Your task to perform on an android device: Open calendar and show me the first week of next month Image 0: 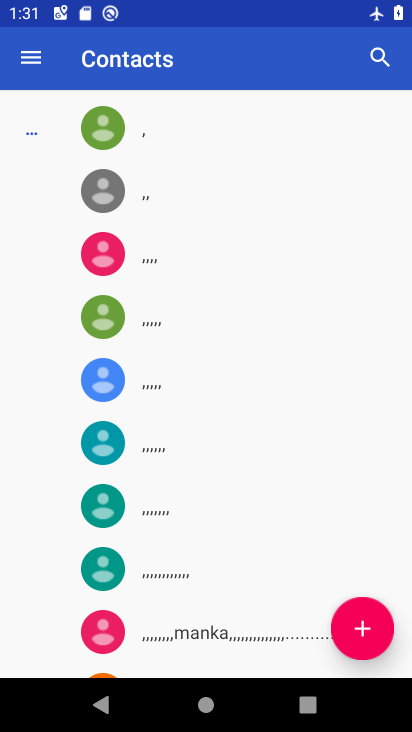
Step 0: press home button
Your task to perform on an android device: Open calendar and show me the first week of next month Image 1: 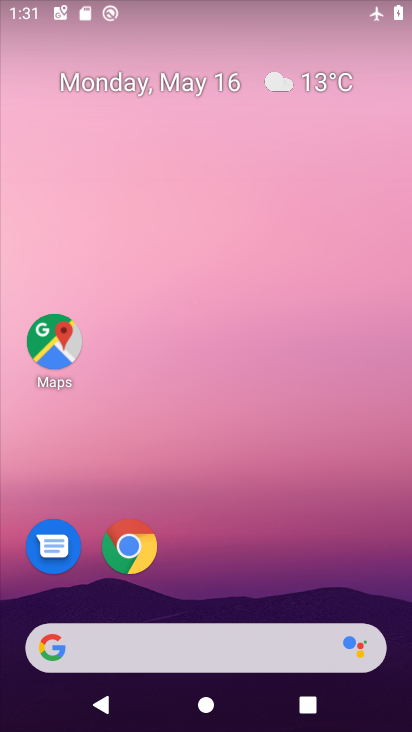
Step 1: drag from (184, 729) to (190, 41)
Your task to perform on an android device: Open calendar and show me the first week of next month Image 2: 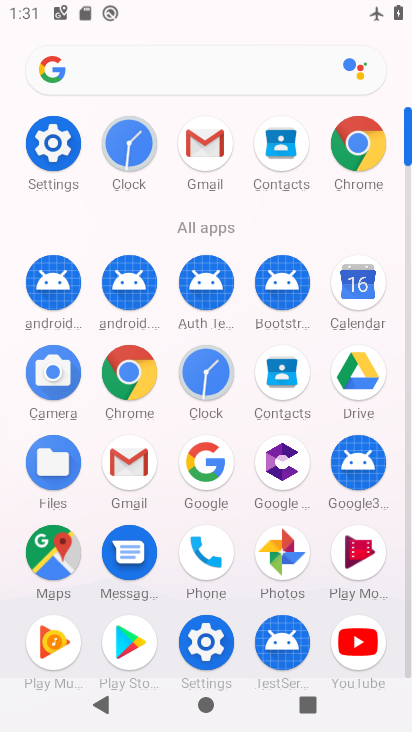
Step 2: click (359, 291)
Your task to perform on an android device: Open calendar and show me the first week of next month Image 3: 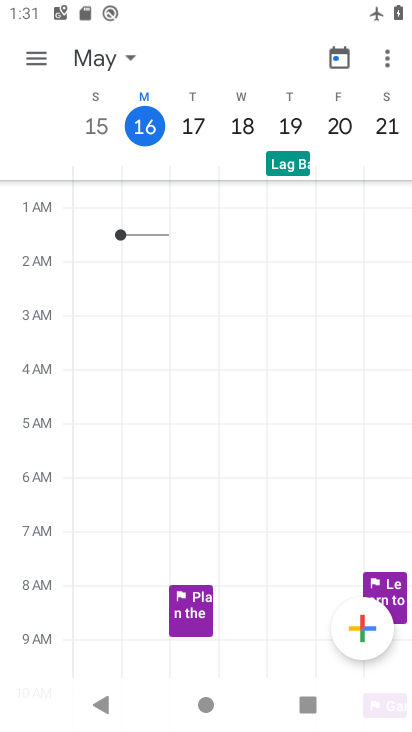
Step 3: click (126, 55)
Your task to perform on an android device: Open calendar and show me the first week of next month Image 4: 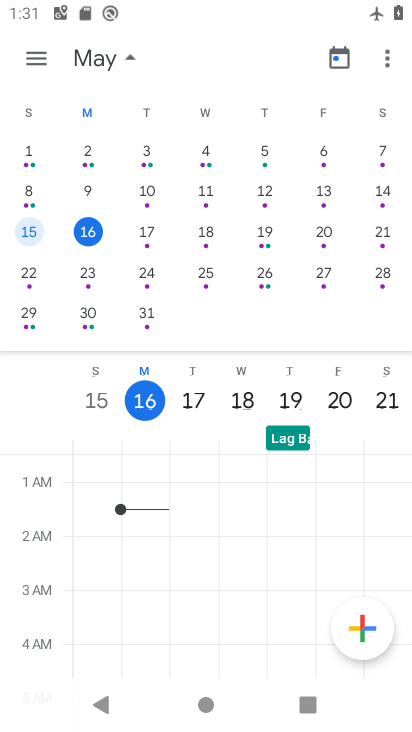
Step 4: drag from (328, 231) to (12, 241)
Your task to perform on an android device: Open calendar and show me the first week of next month Image 5: 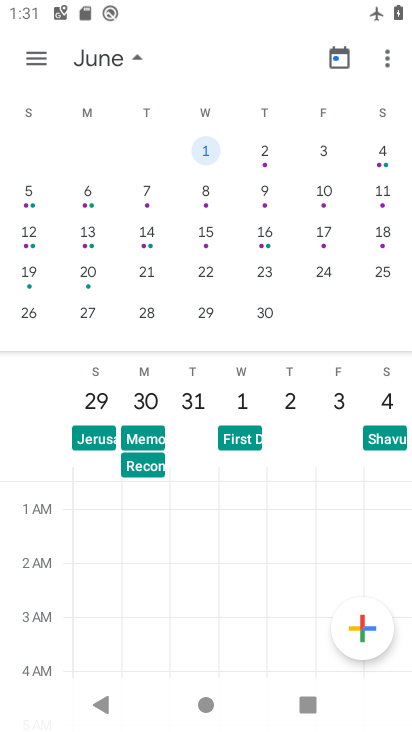
Step 5: click (88, 189)
Your task to perform on an android device: Open calendar and show me the first week of next month Image 6: 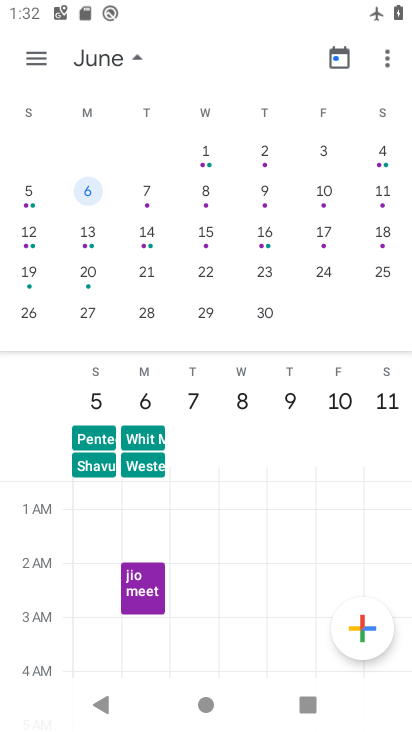
Step 6: click (32, 55)
Your task to perform on an android device: Open calendar and show me the first week of next month Image 7: 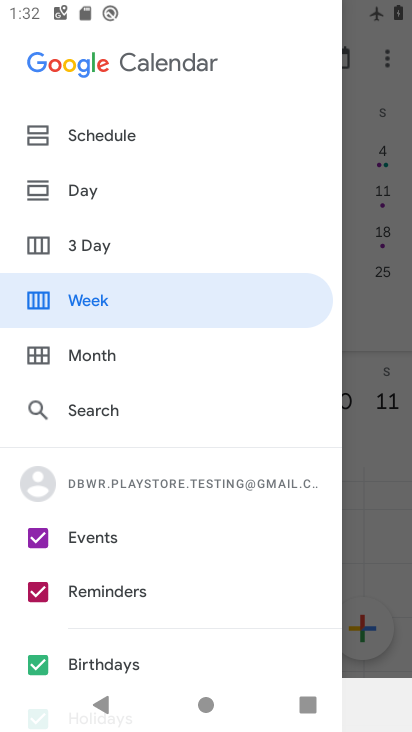
Step 7: click (92, 296)
Your task to perform on an android device: Open calendar and show me the first week of next month Image 8: 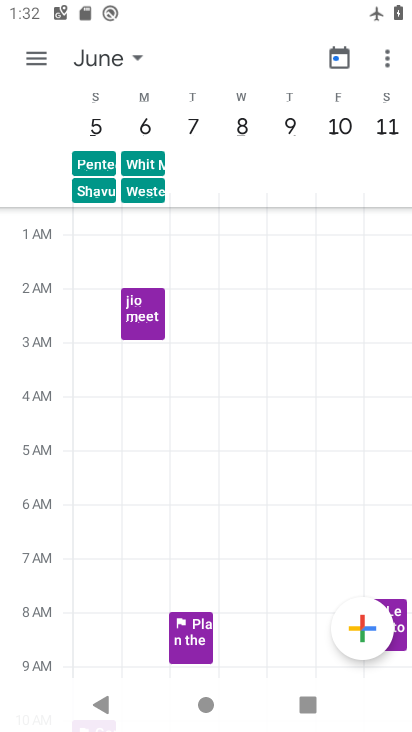
Step 8: task complete